Your task to perform on an android device: Open calendar and show me the third week of next month Image 0: 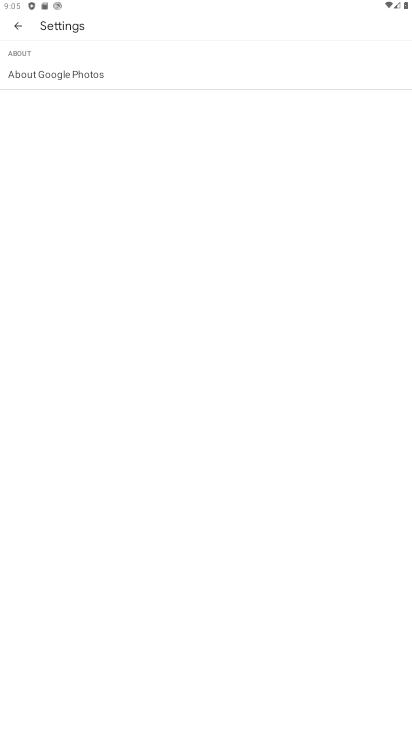
Step 0: press home button
Your task to perform on an android device: Open calendar and show me the third week of next month Image 1: 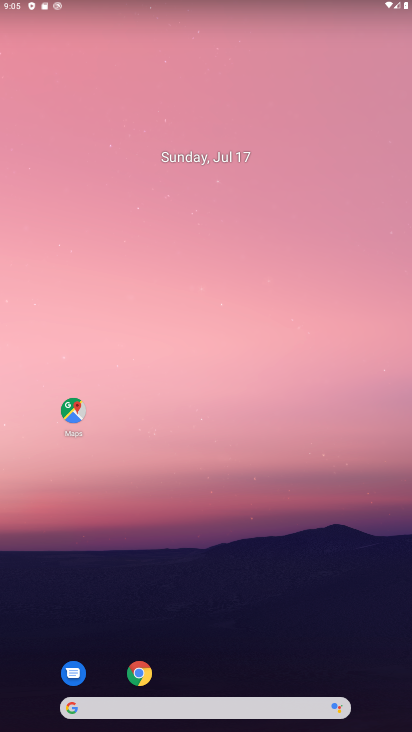
Step 1: drag from (214, 689) to (194, 9)
Your task to perform on an android device: Open calendar and show me the third week of next month Image 2: 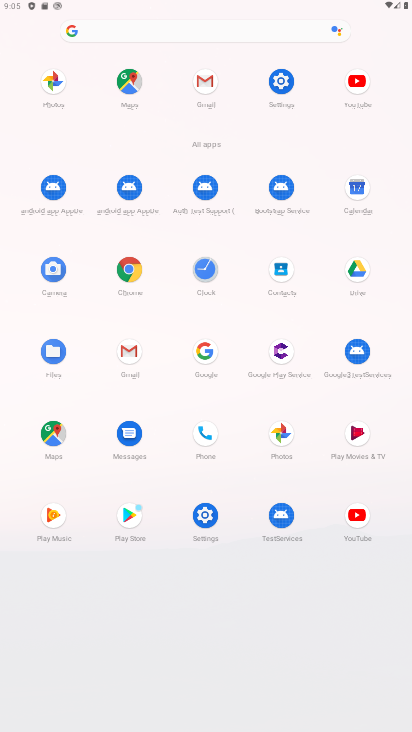
Step 2: click (358, 183)
Your task to perform on an android device: Open calendar and show me the third week of next month Image 3: 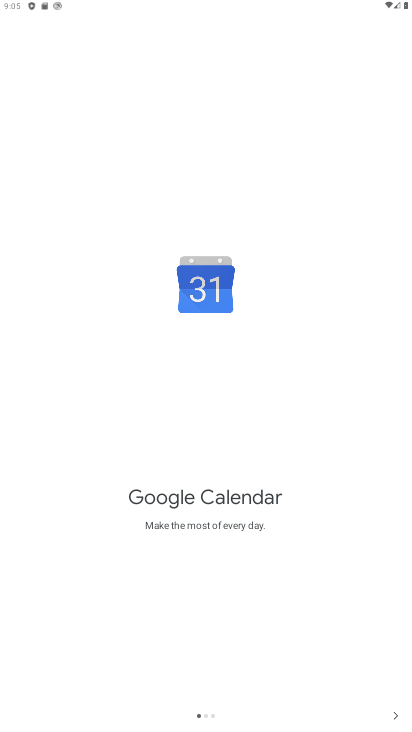
Step 3: click (396, 717)
Your task to perform on an android device: Open calendar and show me the third week of next month Image 4: 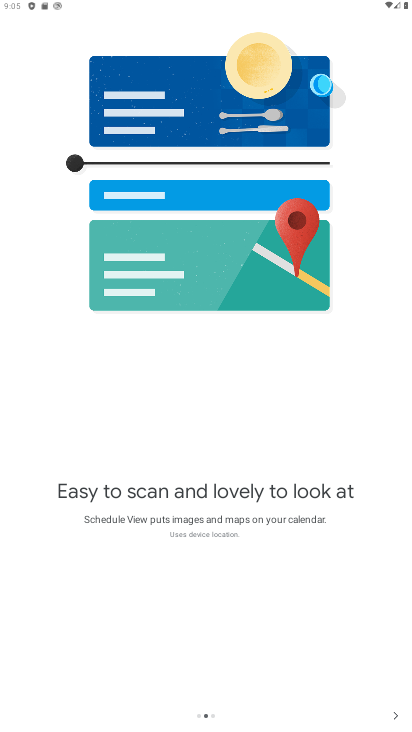
Step 4: click (396, 717)
Your task to perform on an android device: Open calendar and show me the third week of next month Image 5: 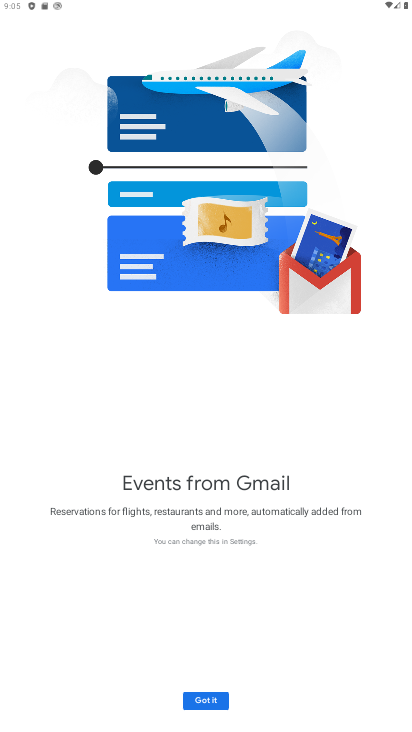
Step 5: click (396, 717)
Your task to perform on an android device: Open calendar and show me the third week of next month Image 6: 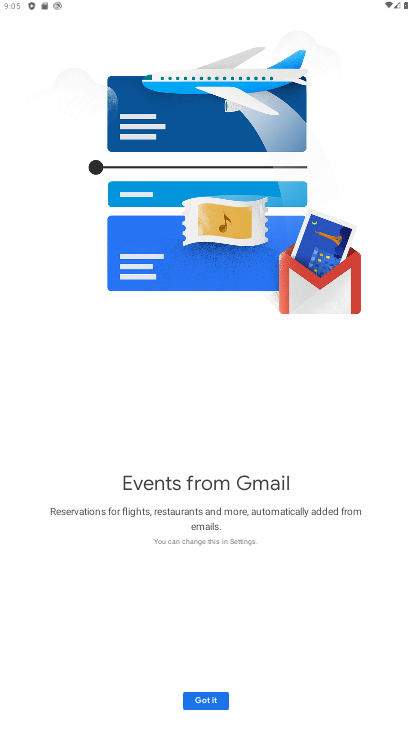
Step 6: click (217, 701)
Your task to perform on an android device: Open calendar and show me the third week of next month Image 7: 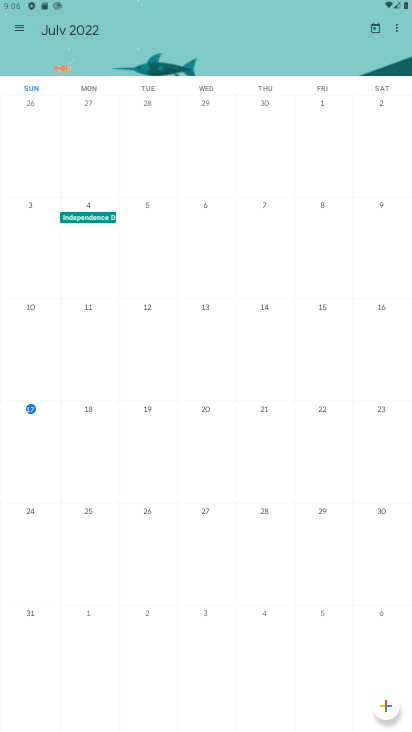
Step 7: click (22, 35)
Your task to perform on an android device: Open calendar and show me the third week of next month Image 8: 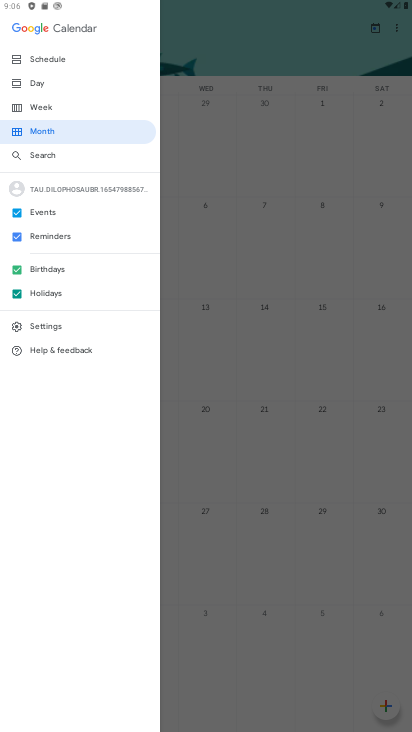
Step 8: click (50, 107)
Your task to perform on an android device: Open calendar and show me the third week of next month Image 9: 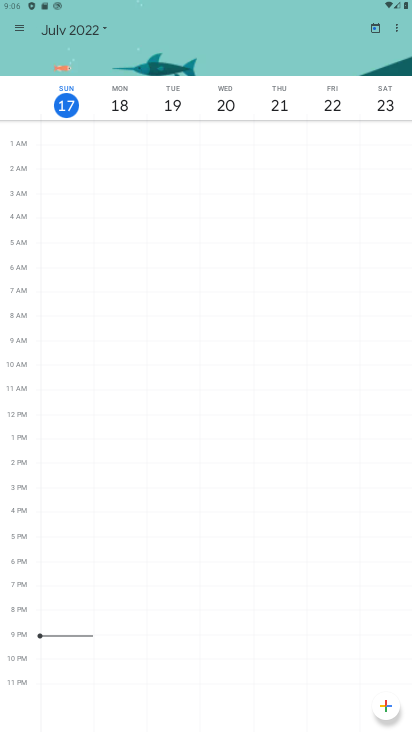
Step 9: click (86, 31)
Your task to perform on an android device: Open calendar and show me the third week of next month Image 10: 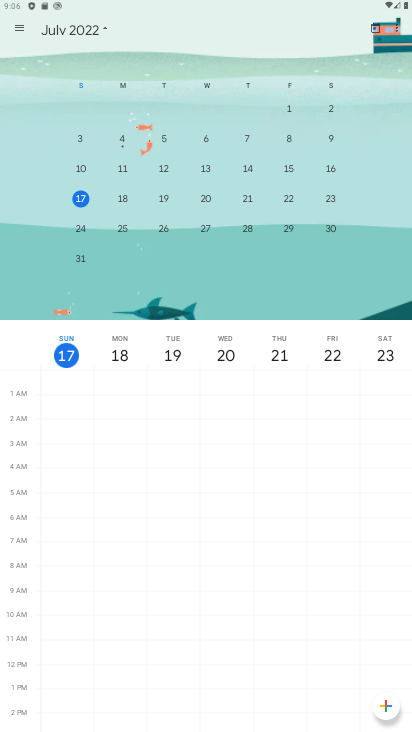
Step 10: drag from (324, 234) to (1, 221)
Your task to perform on an android device: Open calendar and show me the third week of next month Image 11: 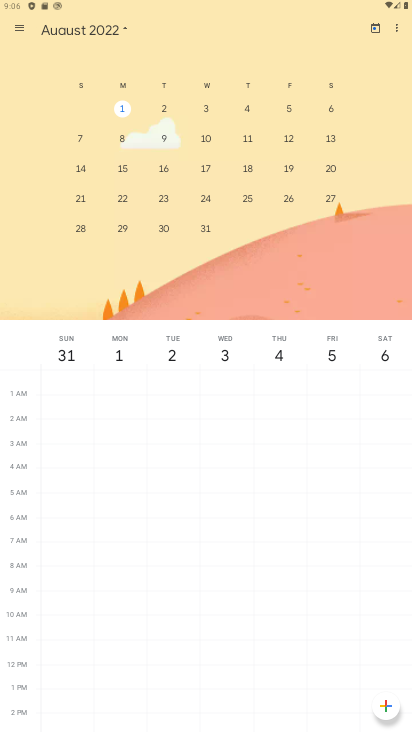
Step 11: click (123, 165)
Your task to perform on an android device: Open calendar and show me the third week of next month Image 12: 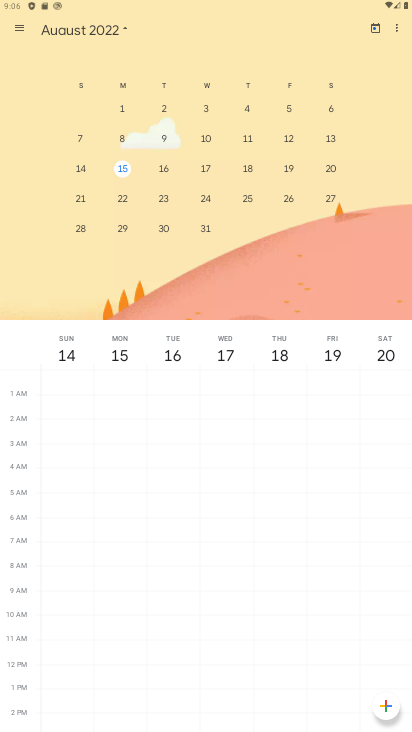
Step 12: task complete